Your task to perform on an android device: Open Youtube and go to "Your channel" Image 0: 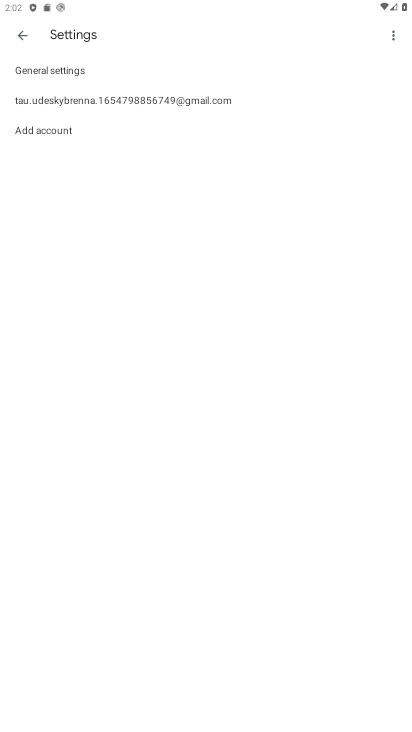
Step 0: press home button
Your task to perform on an android device: Open Youtube and go to "Your channel" Image 1: 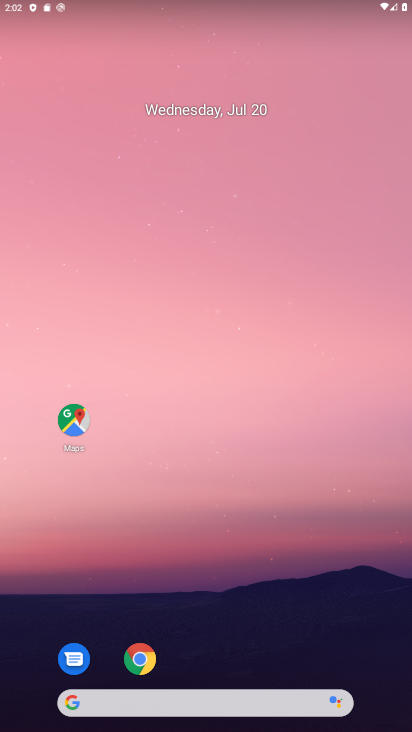
Step 1: drag from (349, 644) to (274, 133)
Your task to perform on an android device: Open Youtube and go to "Your channel" Image 2: 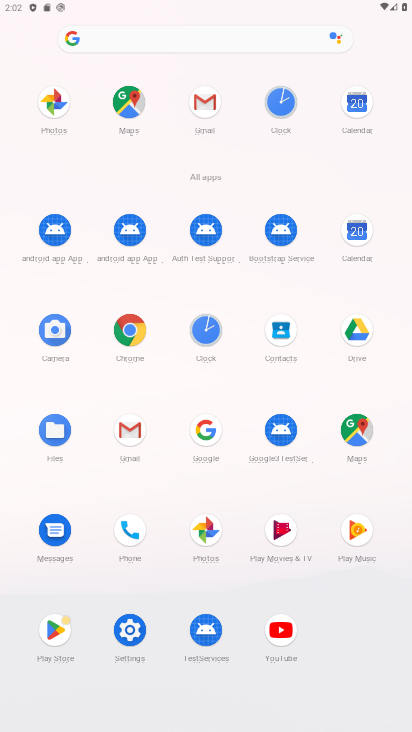
Step 2: click (277, 632)
Your task to perform on an android device: Open Youtube and go to "Your channel" Image 3: 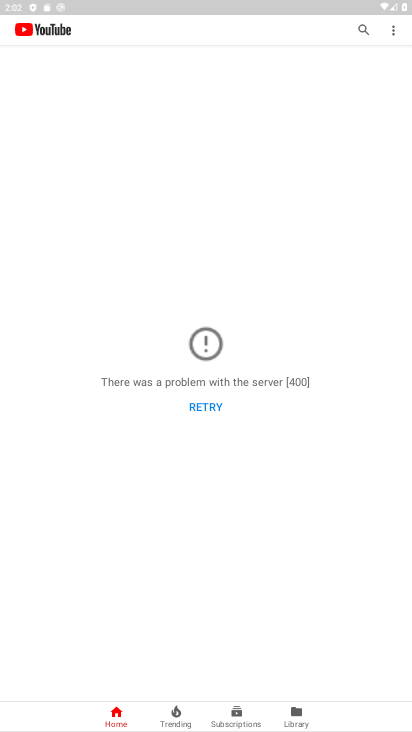
Step 3: click (391, 38)
Your task to perform on an android device: Open Youtube and go to "Your channel" Image 4: 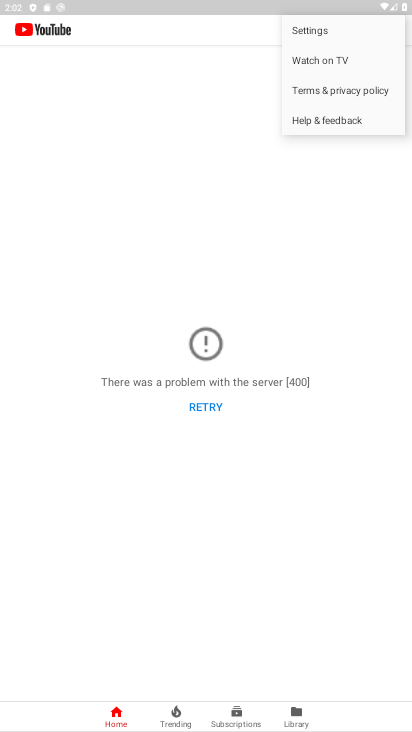
Step 4: task complete